Your task to perform on an android device: Go to calendar. Show me events next week Image 0: 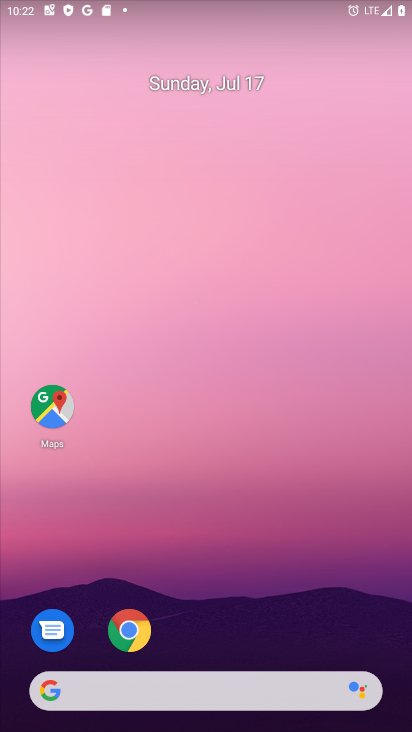
Step 0: press home button
Your task to perform on an android device: Go to calendar. Show me events next week Image 1: 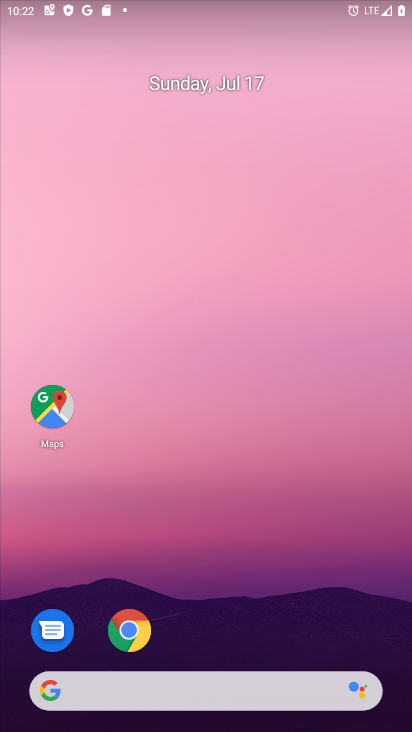
Step 1: drag from (202, 647) to (218, 216)
Your task to perform on an android device: Go to calendar. Show me events next week Image 2: 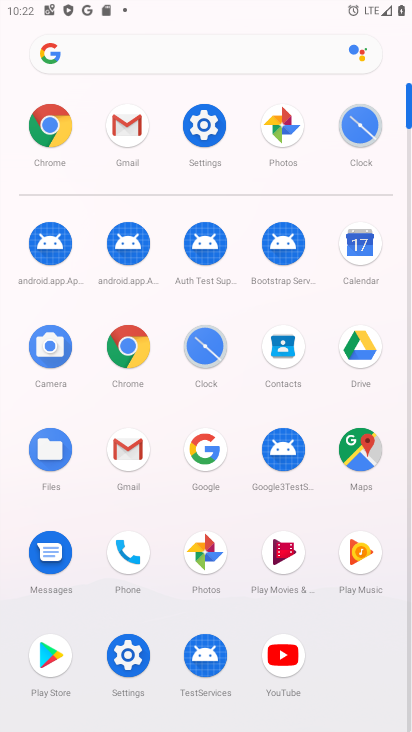
Step 2: click (356, 240)
Your task to perform on an android device: Go to calendar. Show me events next week Image 3: 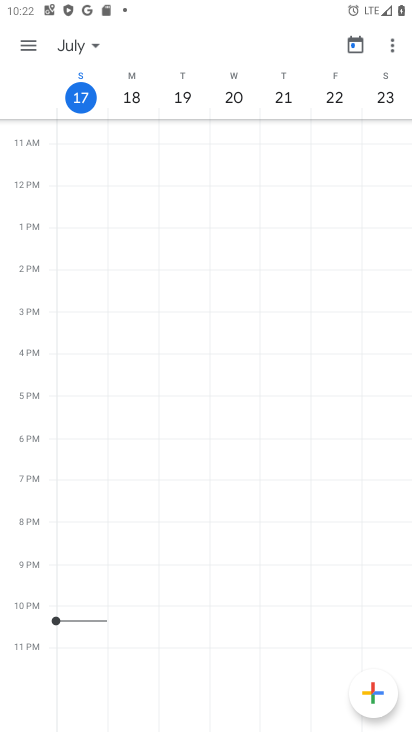
Step 3: press home button
Your task to perform on an android device: Go to calendar. Show me events next week Image 4: 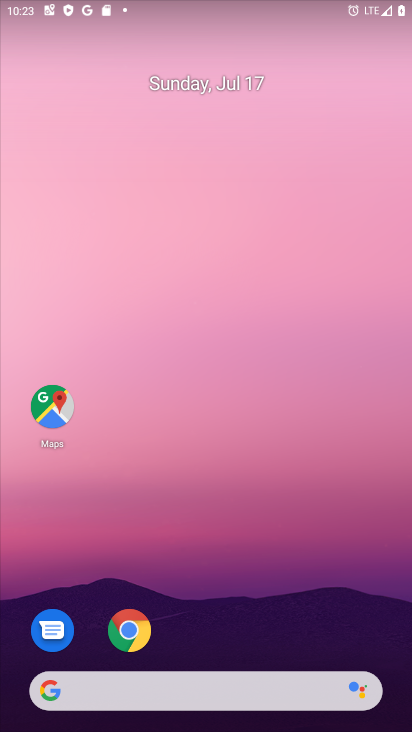
Step 4: drag from (217, 649) to (270, 155)
Your task to perform on an android device: Go to calendar. Show me events next week Image 5: 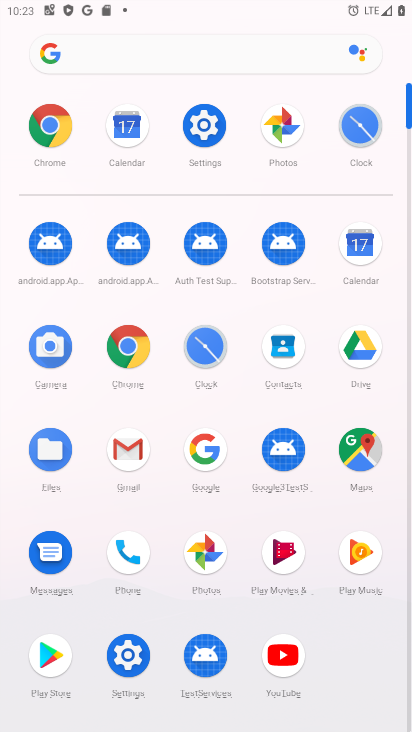
Step 5: click (354, 245)
Your task to perform on an android device: Go to calendar. Show me events next week Image 6: 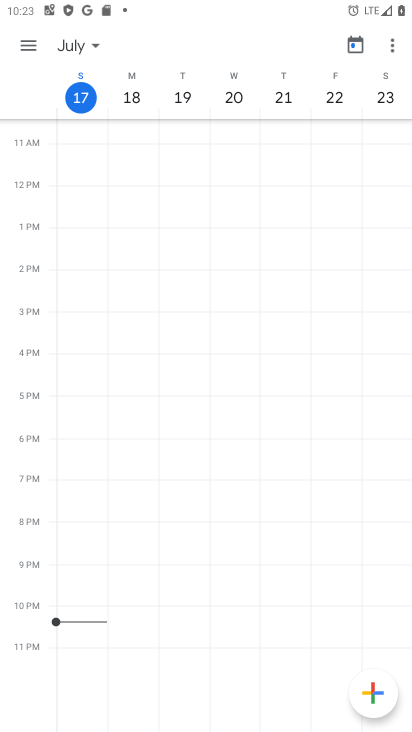
Step 6: task complete